Your task to perform on an android device: Search for Mexican restaurants on Maps Image 0: 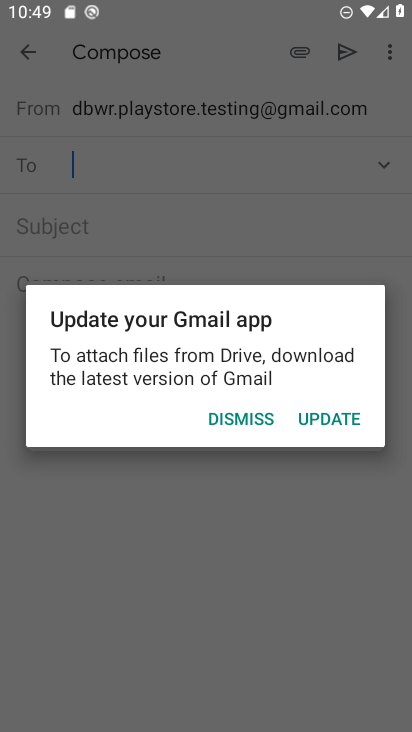
Step 0: press home button
Your task to perform on an android device: Search for Mexican restaurants on Maps Image 1: 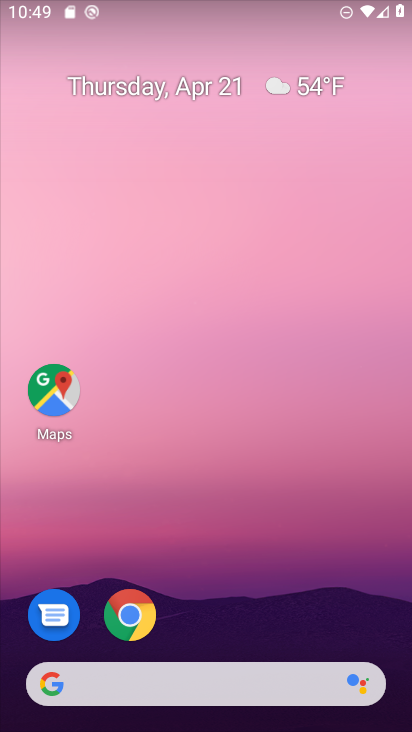
Step 1: click (53, 393)
Your task to perform on an android device: Search for Mexican restaurants on Maps Image 2: 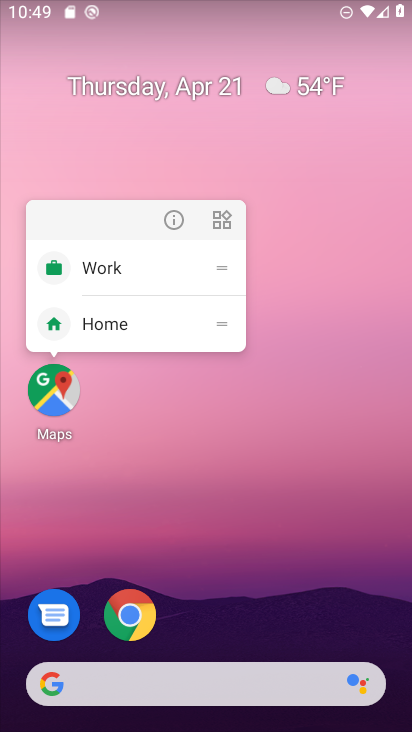
Step 2: click (53, 394)
Your task to perform on an android device: Search for Mexican restaurants on Maps Image 3: 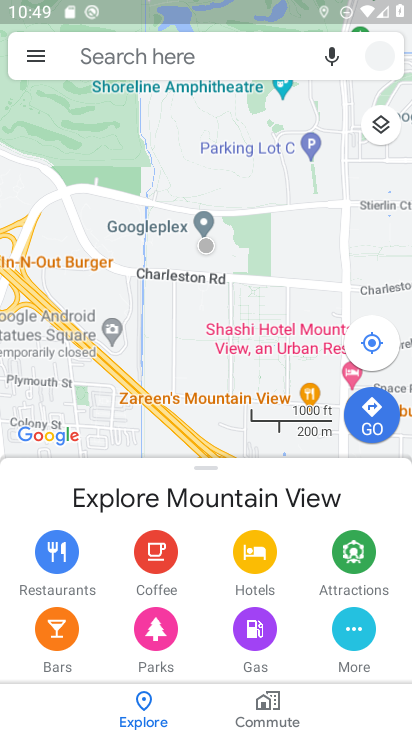
Step 3: click (141, 61)
Your task to perform on an android device: Search for Mexican restaurants on Maps Image 4: 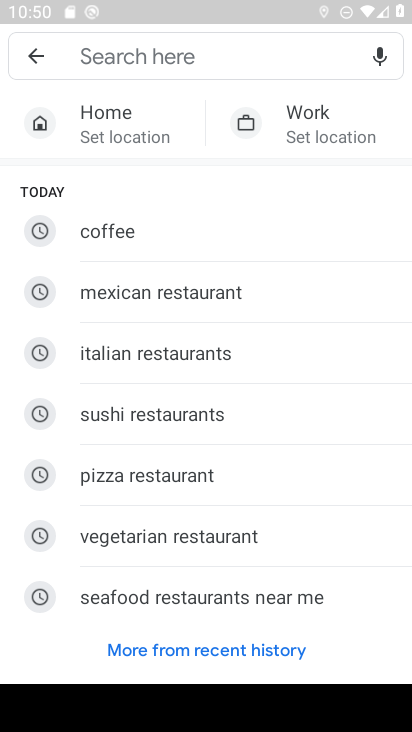
Step 4: type "mexican restaurants"
Your task to perform on an android device: Search for Mexican restaurants on Maps Image 5: 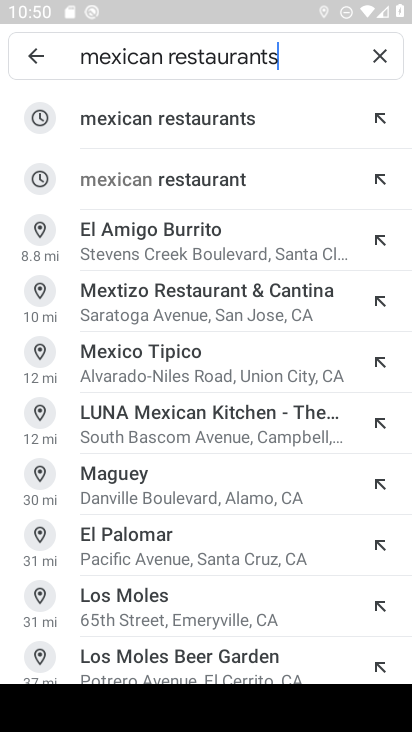
Step 5: click (216, 122)
Your task to perform on an android device: Search for Mexican restaurants on Maps Image 6: 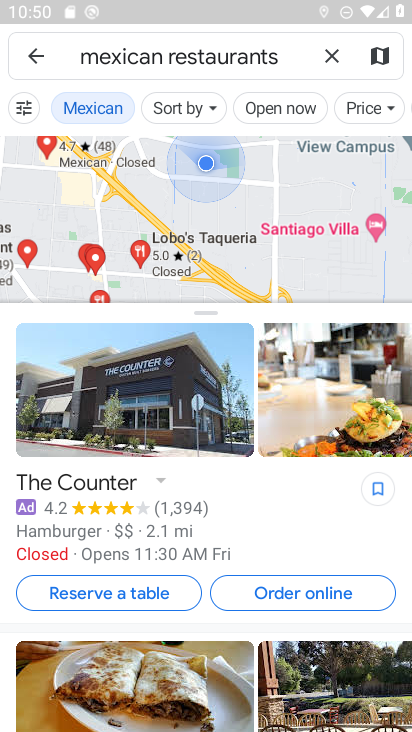
Step 6: task complete